Your task to perform on an android device: toggle airplane mode Image 0: 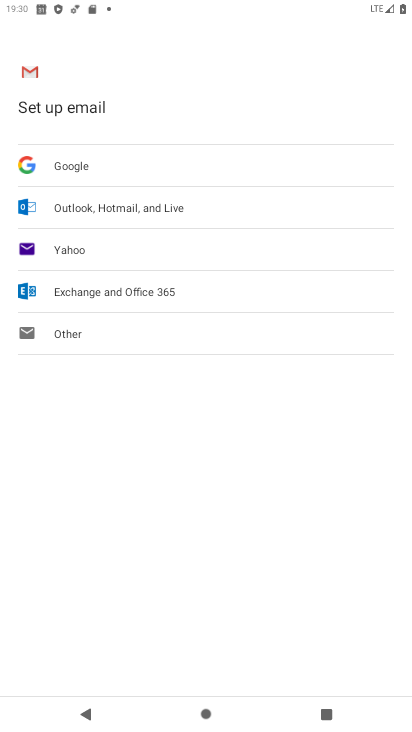
Step 0: press home button
Your task to perform on an android device: toggle airplane mode Image 1: 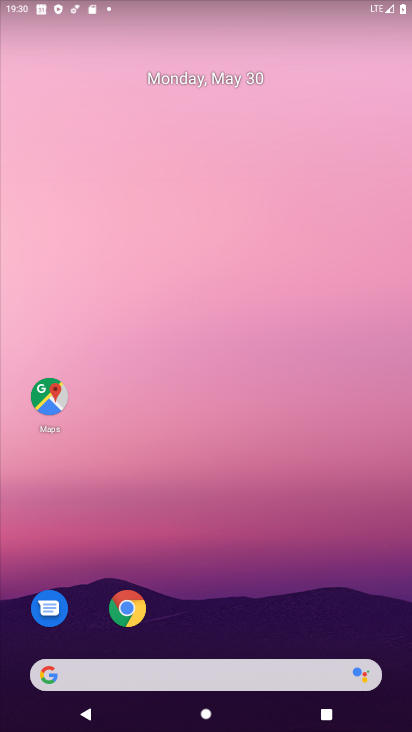
Step 1: drag from (313, 584) to (409, 209)
Your task to perform on an android device: toggle airplane mode Image 2: 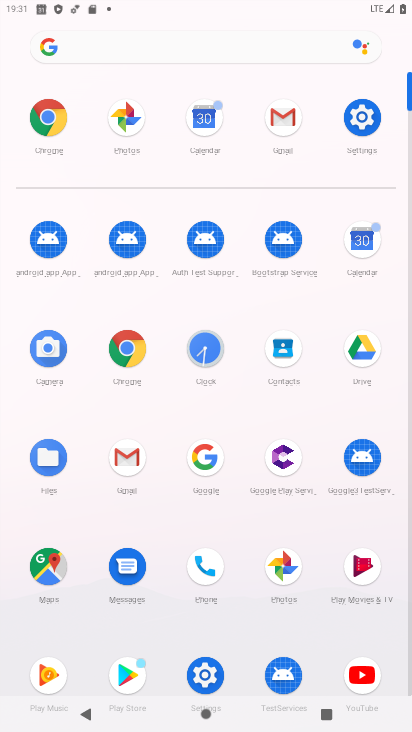
Step 2: click (360, 179)
Your task to perform on an android device: toggle airplane mode Image 3: 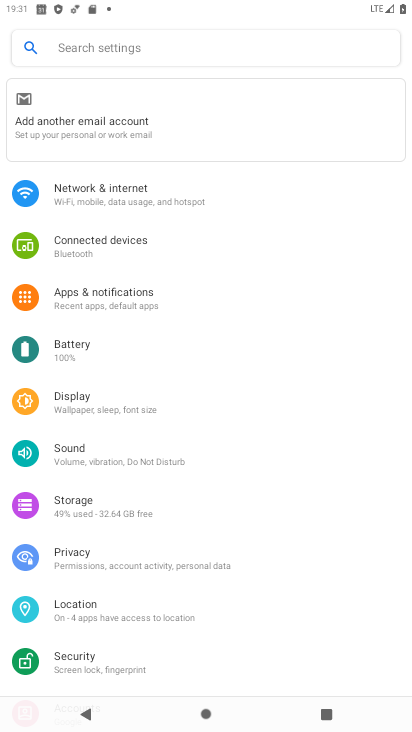
Step 3: click (135, 197)
Your task to perform on an android device: toggle airplane mode Image 4: 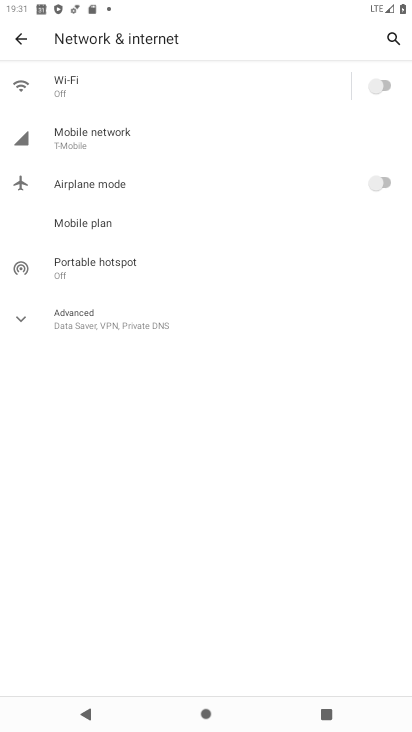
Step 4: click (378, 187)
Your task to perform on an android device: toggle airplane mode Image 5: 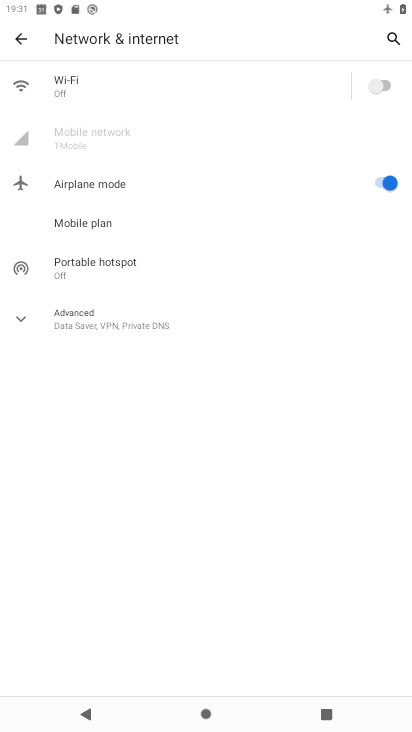
Step 5: task complete